Your task to perform on an android device: Open Yahoo.com Image 0: 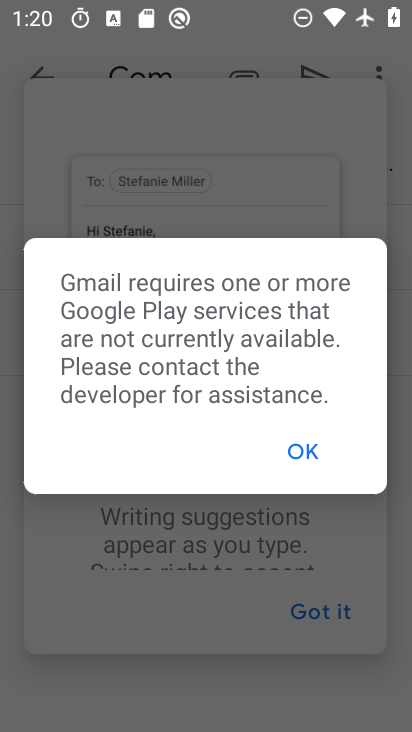
Step 0: press home button
Your task to perform on an android device: Open Yahoo.com Image 1: 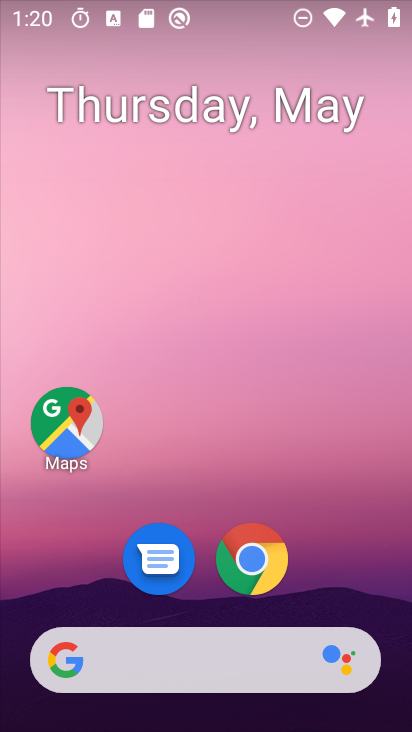
Step 1: click (255, 555)
Your task to perform on an android device: Open Yahoo.com Image 2: 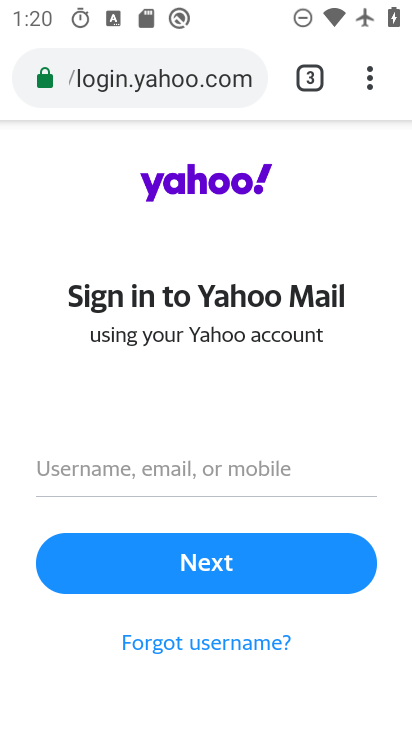
Step 2: task complete